Your task to perform on an android device: Open Wikipedia Image 0: 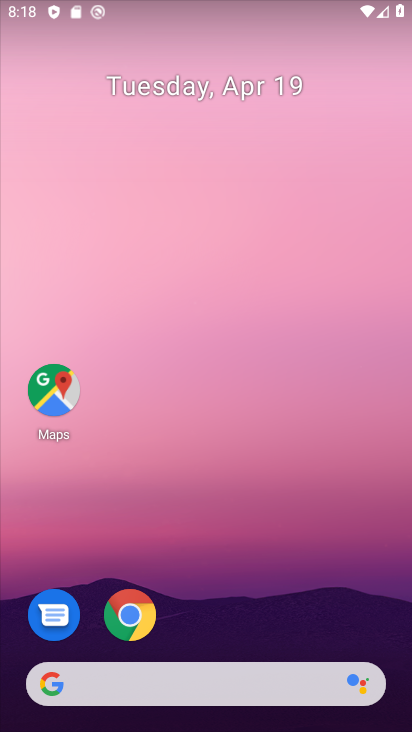
Step 0: click (131, 630)
Your task to perform on an android device: Open Wikipedia Image 1: 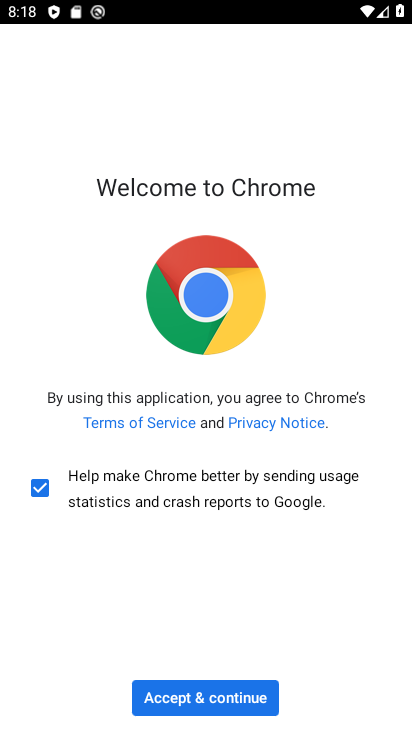
Step 1: click (189, 708)
Your task to perform on an android device: Open Wikipedia Image 2: 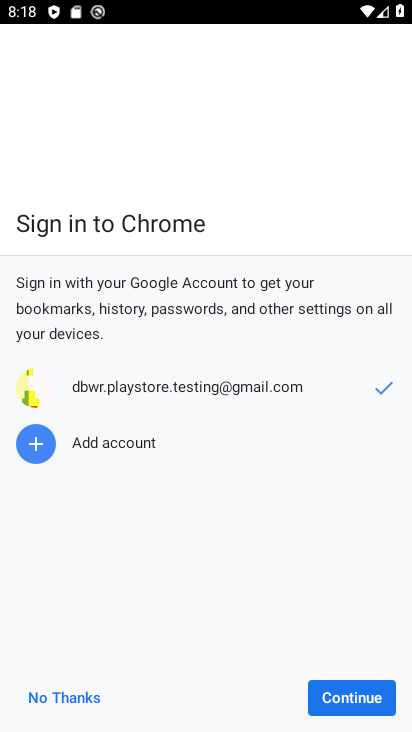
Step 2: click (322, 699)
Your task to perform on an android device: Open Wikipedia Image 3: 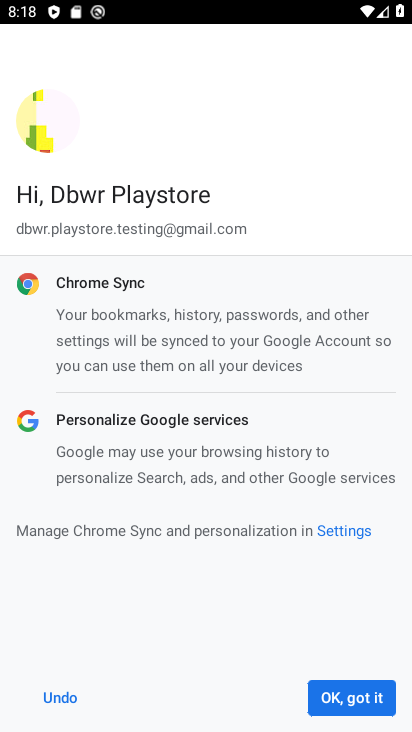
Step 3: click (322, 699)
Your task to perform on an android device: Open Wikipedia Image 4: 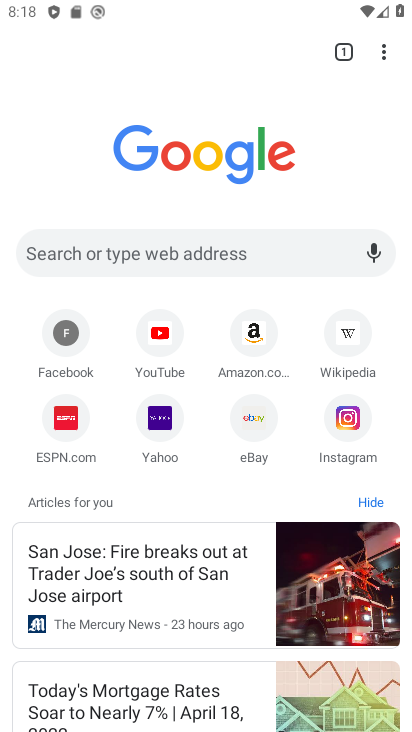
Step 4: click (352, 322)
Your task to perform on an android device: Open Wikipedia Image 5: 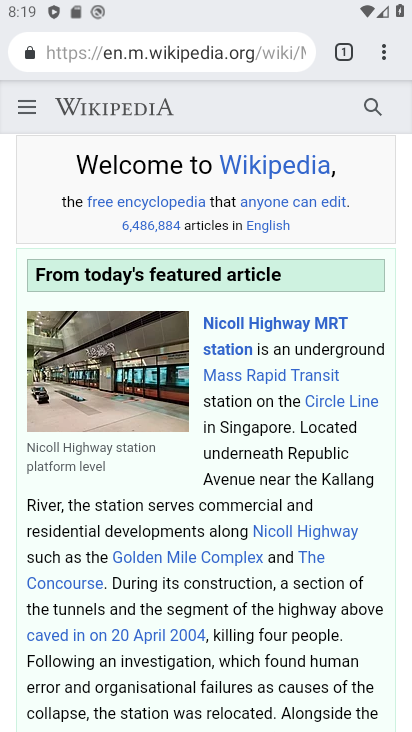
Step 5: task complete